Your task to perform on an android device: allow cookies in the chrome app Image 0: 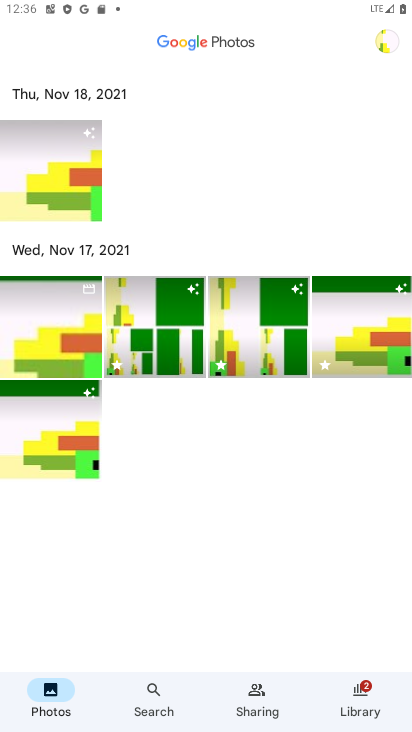
Step 0: click (398, 42)
Your task to perform on an android device: allow cookies in the chrome app Image 1: 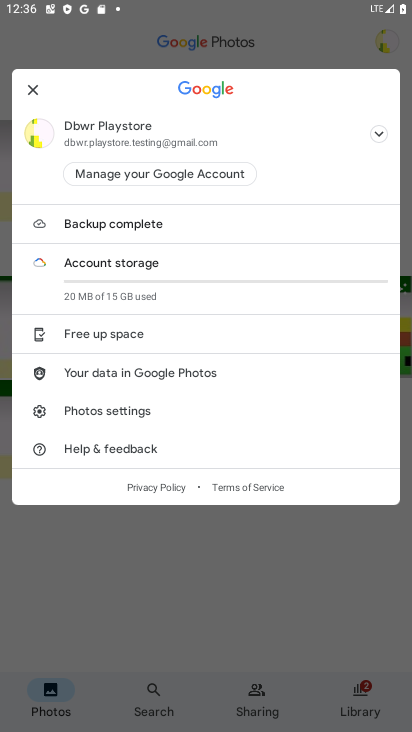
Step 1: press home button
Your task to perform on an android device: allow cookies in the chrome app Image 2: 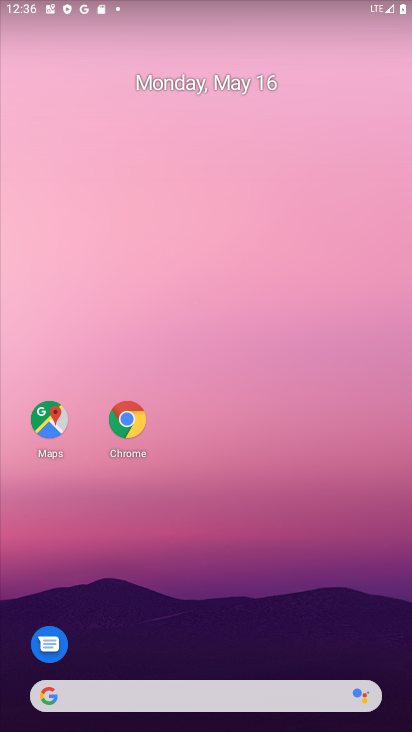
Step 2: drag from (208, 660) to (230, 511)
Your task to perform on an android device: allow cookies in the chrome app Image 3: 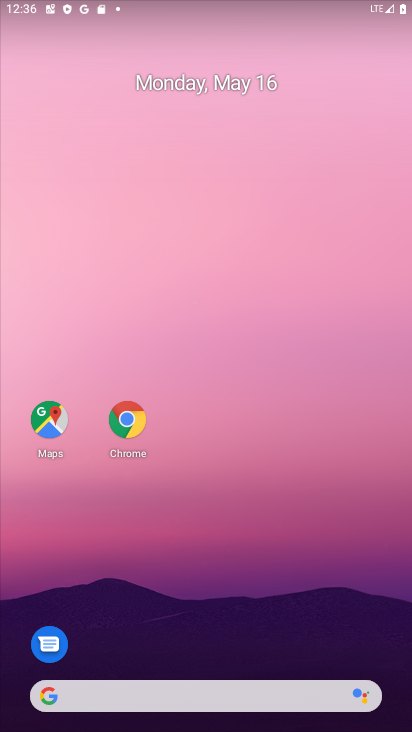
Step 3: drag from (184, 622) to (228, 177)
Your task to perform on an android device: allow cookies in the chrome app Image 4: 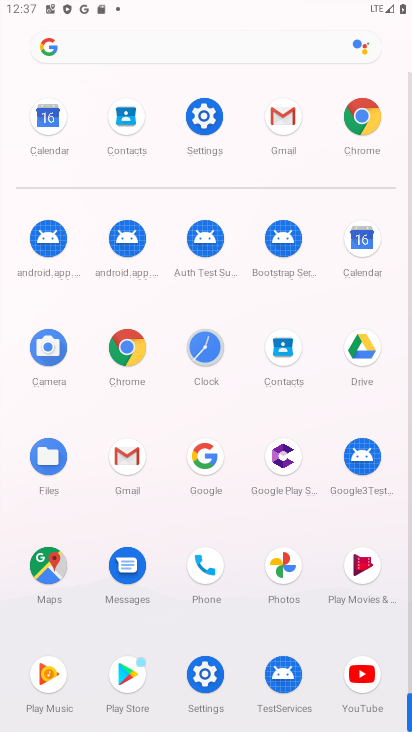
Step 4: click (365, 111)
Your task to perform on an android device: allow cookies in the chrome app Image 5: 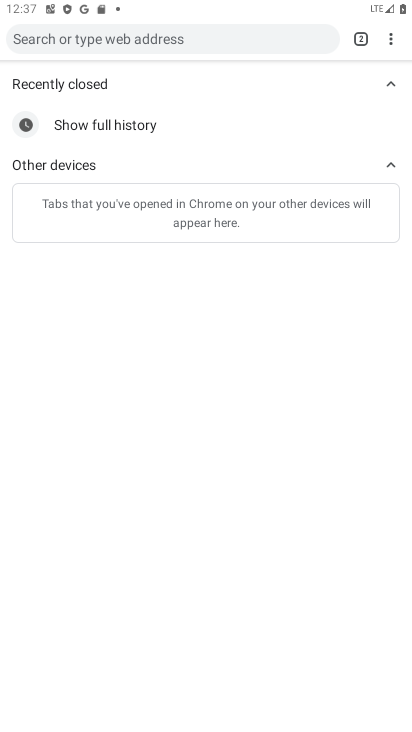
Step 5: drag from (393, 46) to (278, 324)
Your task to perform on an android device: allow cookies in the chrome app Image 6: 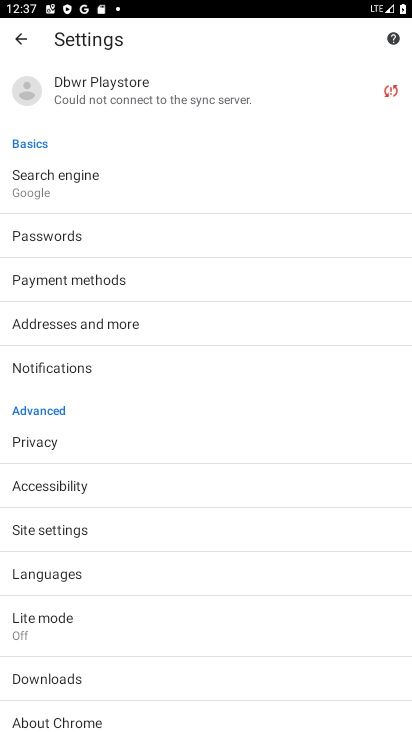
Step 6: click (95, 541)
Your task to perform on an android device: allow cookies in the chrome app Image 7: 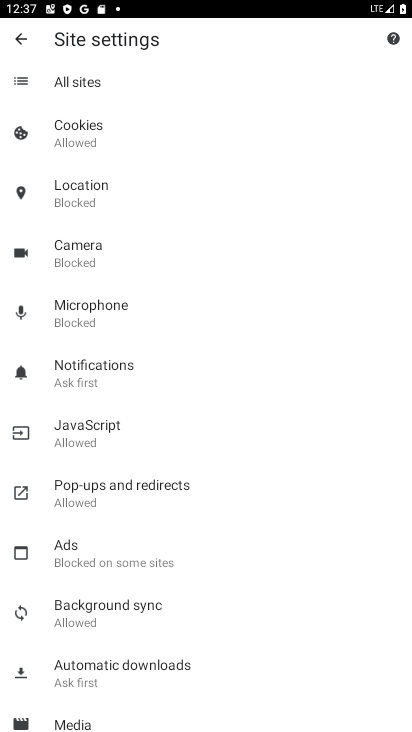
Step 7: click (75, 144)
Your task to perform on an android device: allow cookies in the chrome app Image 8: 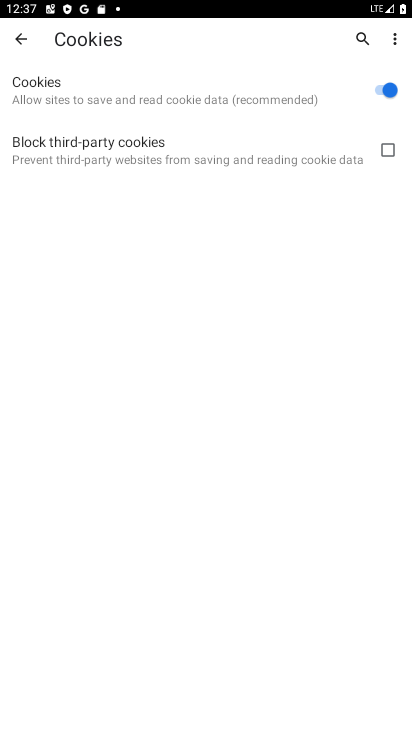
Step 8: task complete